Your task to perform on an android device: change the clock style Image 0: 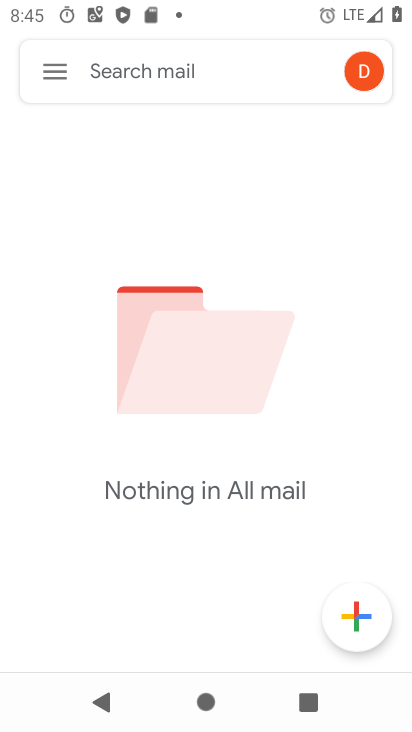
Step 0: press home button
Your task to perform on an android device: change the clock style Image 1: 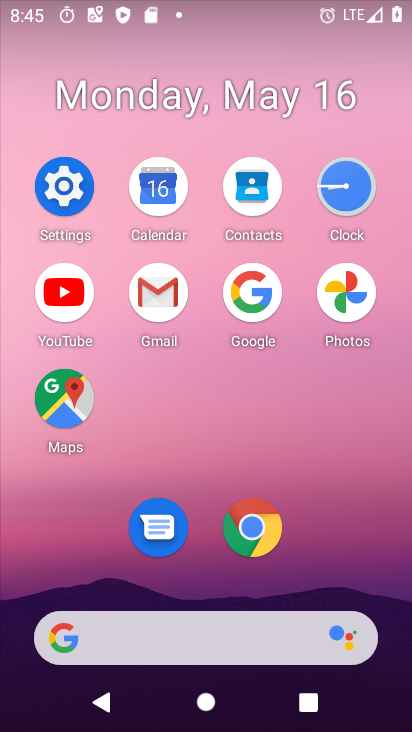
Step 1: click (342, 190)
Your task to perform on an android device: change the clock style Image 2: 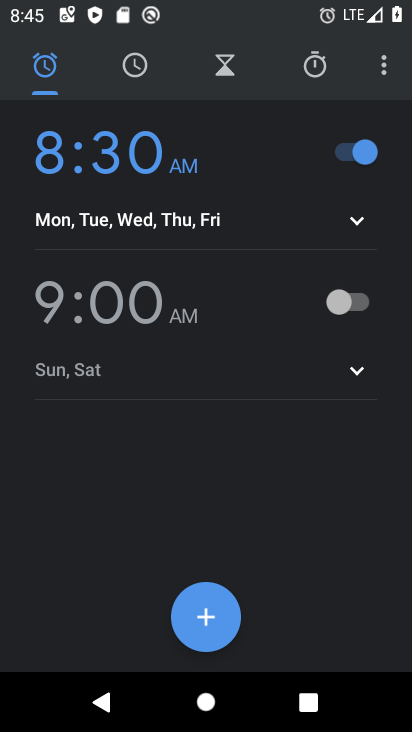
Step 2: click (381, 67)
Your task to perform on an android device: change the clock style Image 3: 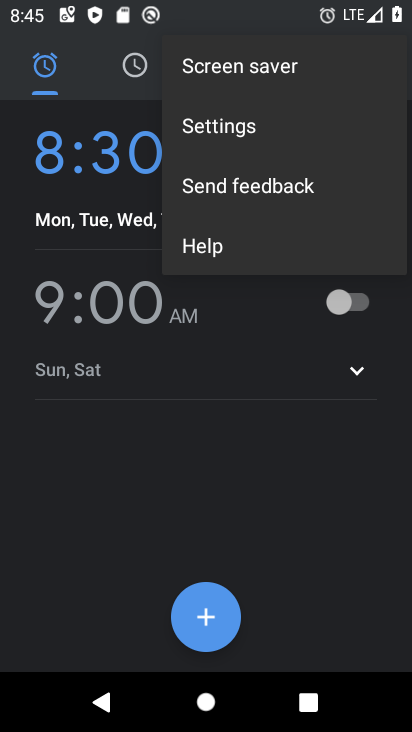
Step 3: click (272, 99)
Your task to perform on an android device: change the clock style Image 4: 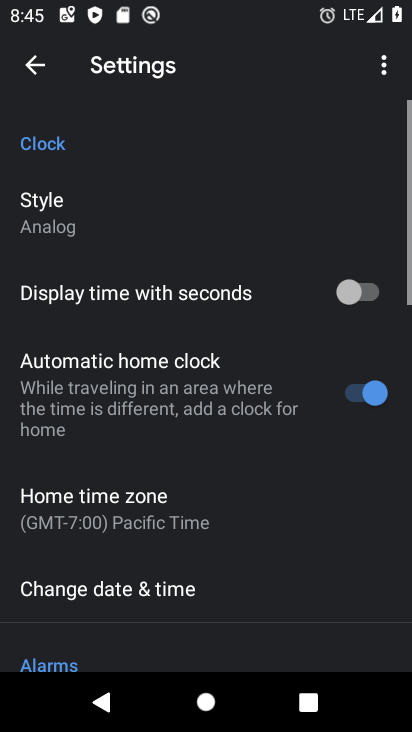
Step 4: click (76, 215)
Your task to perform on an android device: change the clock style Image 5: 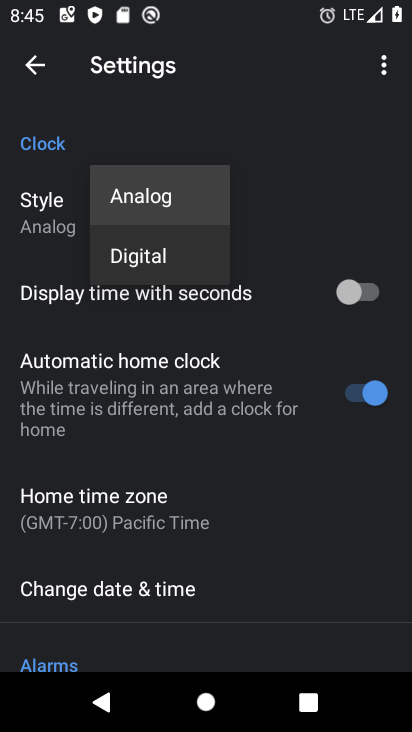
Step 5: click (133, 256)
Your task to perform on an android device: change the clock style Image 6: 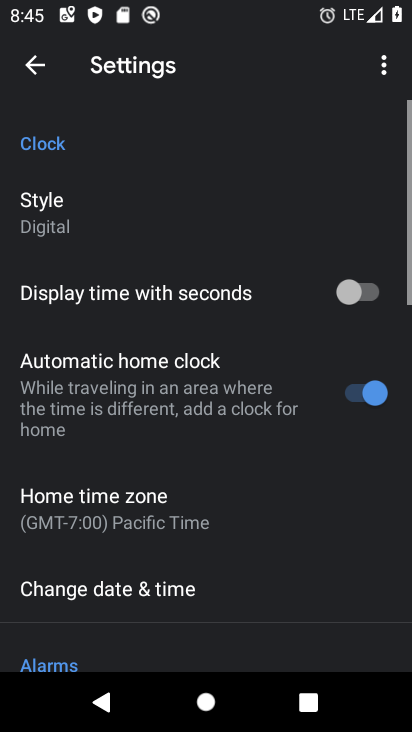
Step 6: task complete